Your task to perform on an android device: change timer sound Image 0: 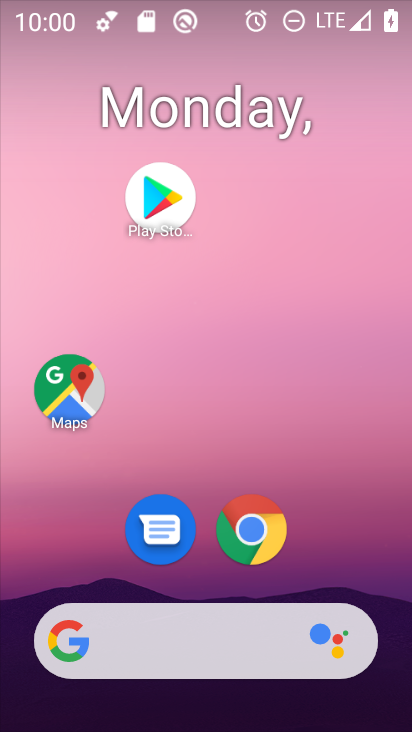
Step 0: drag from (335, 496) to (254, 151)
Your task to perform on an android device: change timer sound Image 1: 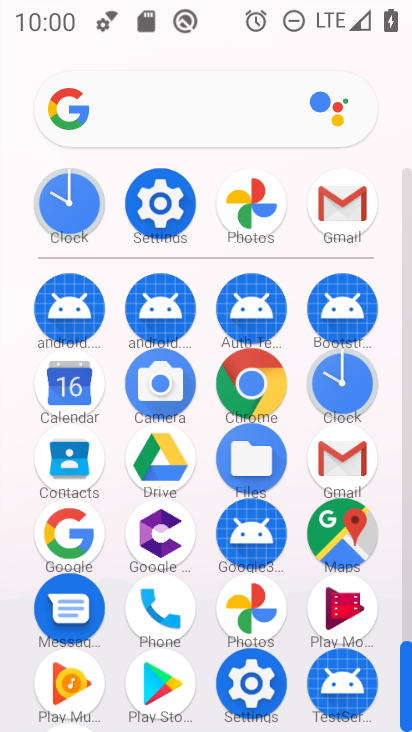
Step 1: click (336, 389)
Your task to perform on an android device: change timer sound Image 2: 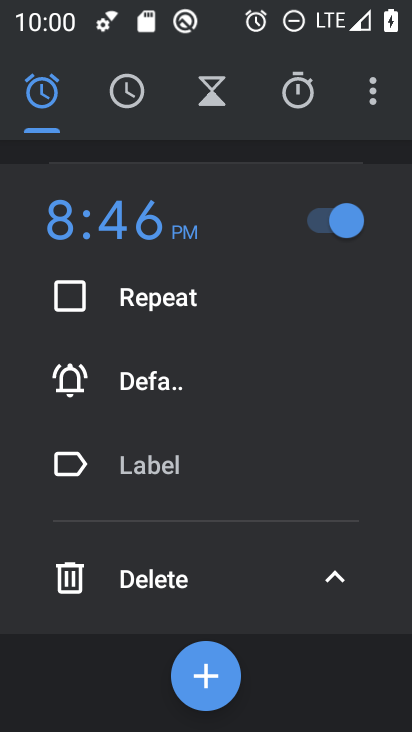
Step 2: click (371, 86)
Your task to perform on an android device: change timer sound Image 3: 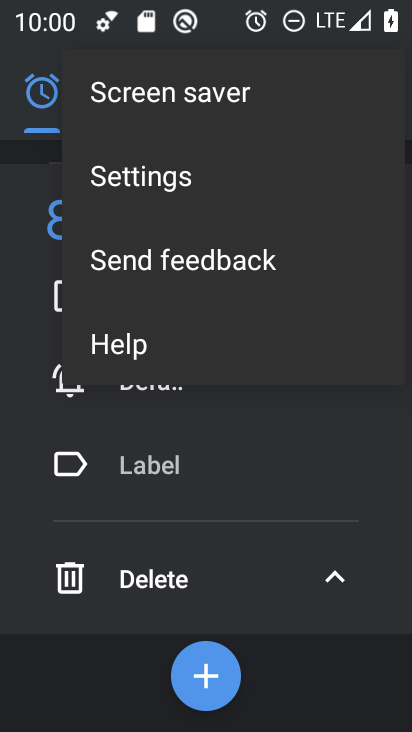
Step 3: click (137, 182)
Your task to perform on an android device: change timer sound Image 4: 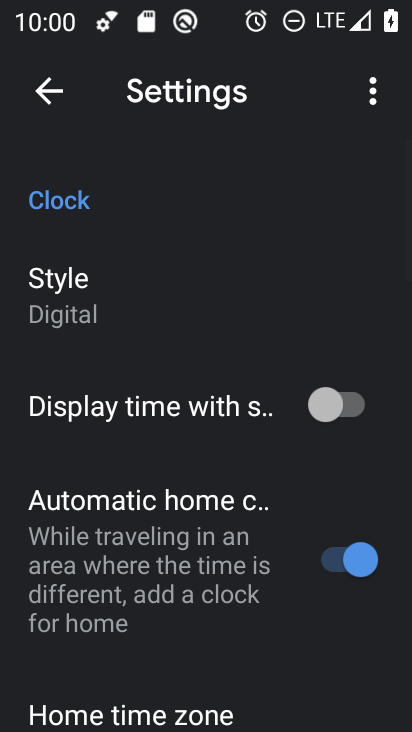
Step 4: drag from (247, 616) to (207, 280)
Your task to perform on an android device: change timer sound Image 5: 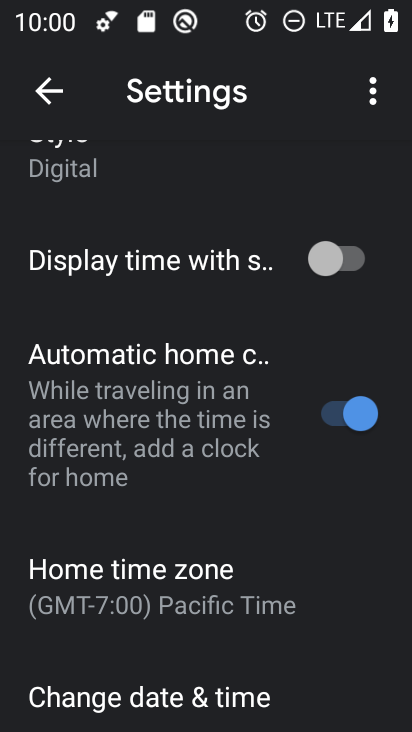
Step 5: drag from (224, 550) to (169, 219)
Your task to perform on an android device: change timer sound Image 6: 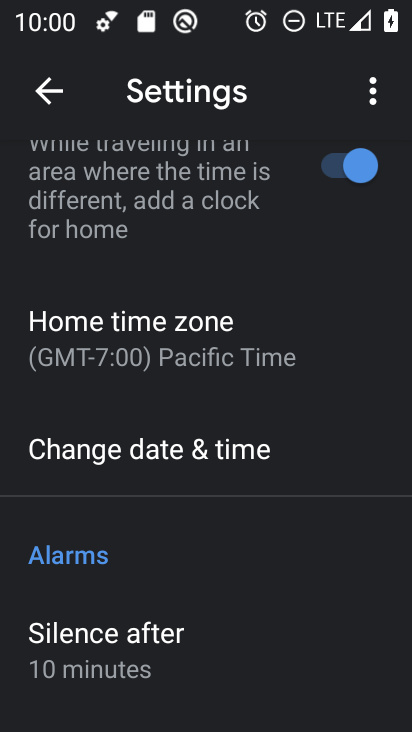
Step 6: drag from (198, 581) to (140, 190)
Your task to perform on an android device: change timer sound Image 7: 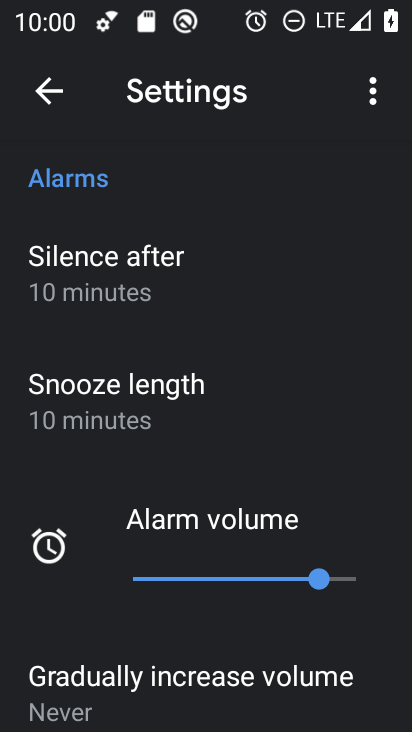
Step 7: drag from (160, 446) to (129, 241)
Your task to perform on an android device: change timer sound Image 8: 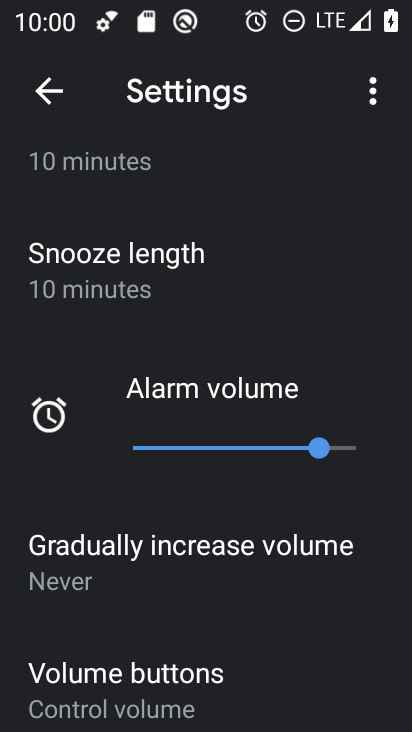
Step 8: drag from (165, 632) to (129, 434)
Your task to perform on an android device: change timer sound Image 9: 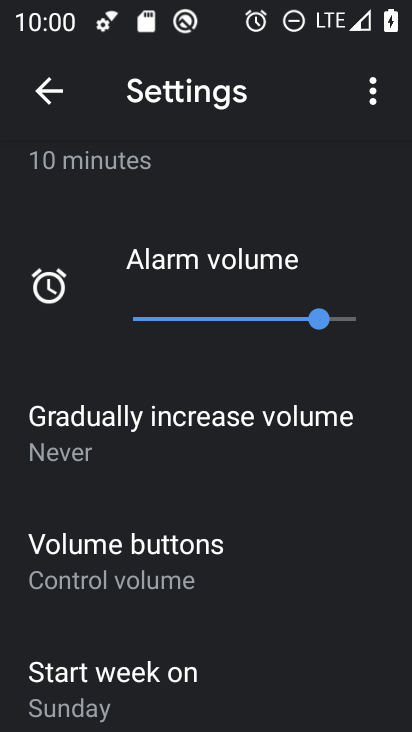
Step 9: drag from (185, 587) to (139, 196)
Your task to perform on an android device: change timer sound Image 10: 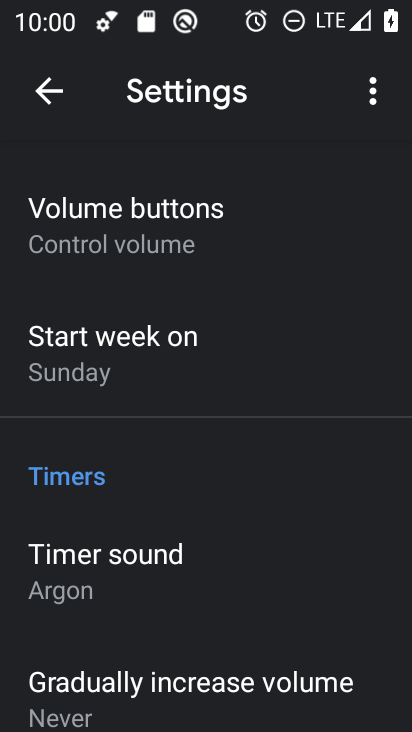
Step 10: click (118, 557)
Your task to perform on an android device: change timer sound Image 11: 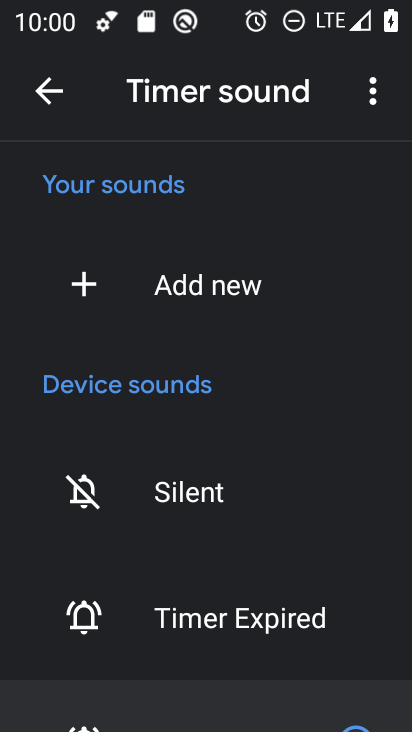
Step 11: click (202, 617)
Your task to perform on an android device: change timer sound Image 12: 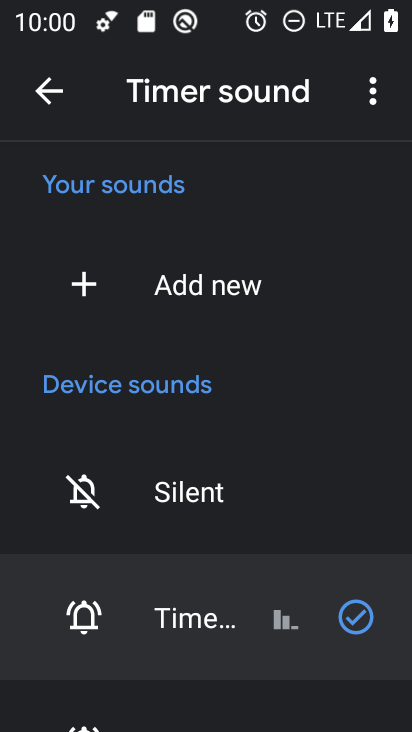
Step 12: task complete